Your task to perform on an android device: delete a single message in the gmail app Image 0: 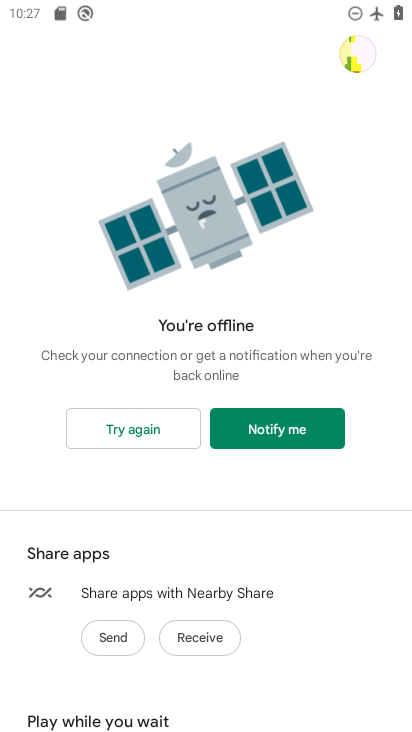
Step 0: press home button
Your task to perform on an android device: delete a single message in the gmail app Image 1: 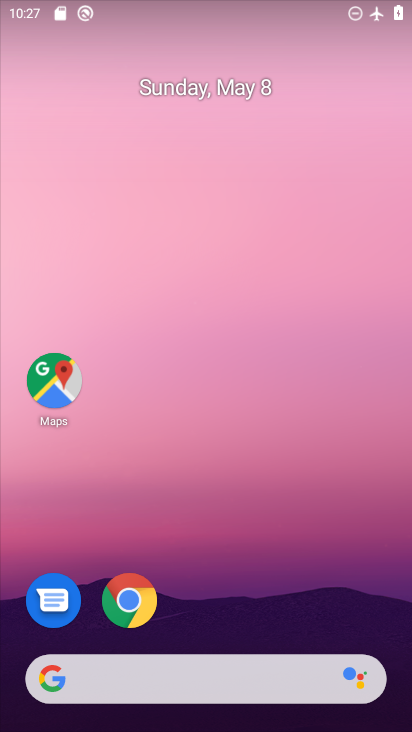
Step 1: drag from (205, 714) to (205, 222)
Your task to perform on an android device: delete a single message in the gmail app Image 2: 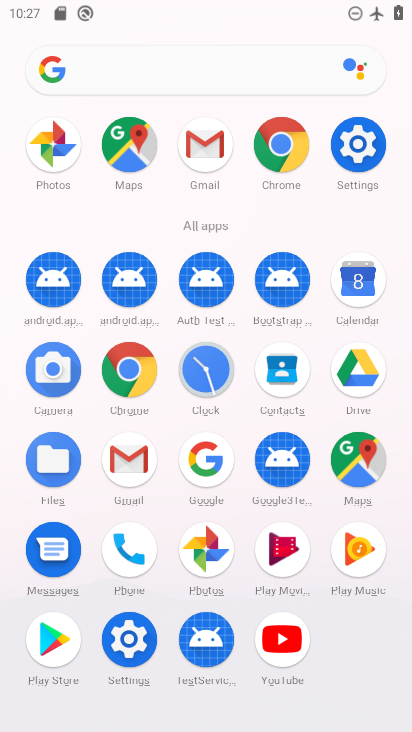
Step 2: click (134, 464)
Your task to perform on an android device: delete a single message in the gmail app Image 3: 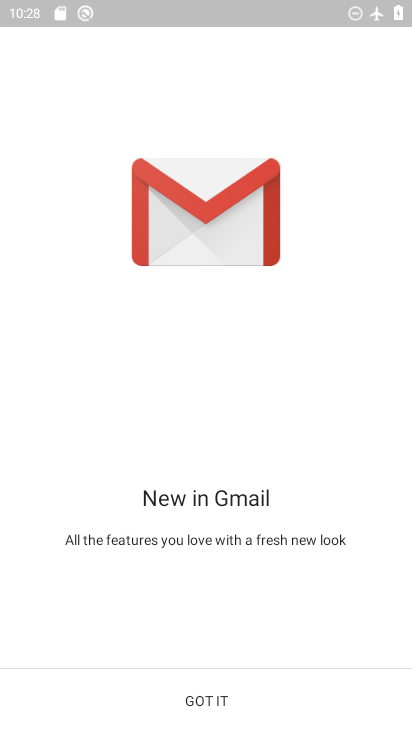
Step 3: click (208, 688)
Your task to perform on an android device: delete a single message in the gmail app Image 4: 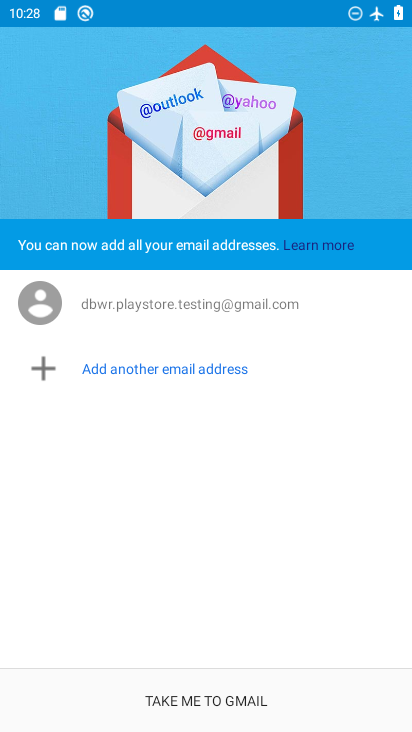
Step 4: click (206, 698)
Your task to perform on an android device: delete a single message in the gmail app Image 5: 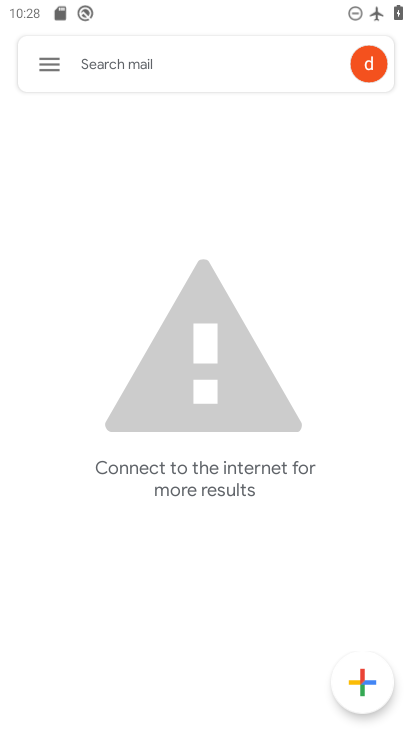
Step 5: task complete